Your task to perform on an android device: clear history in the chrome app Image 0: 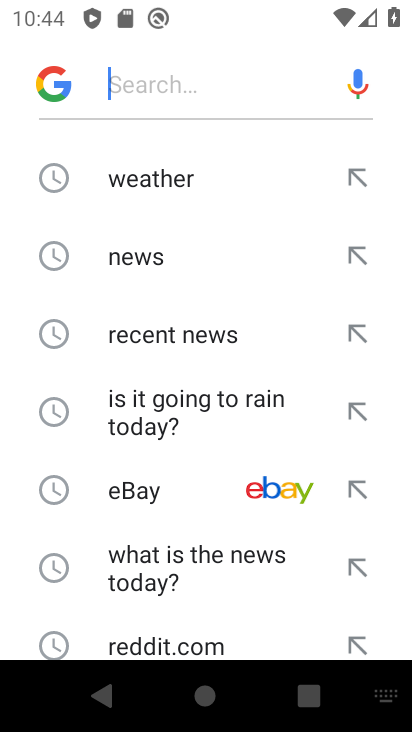
Step 0: press home button
Your task to perform on an android device: clear history in the chrome app Image 1: 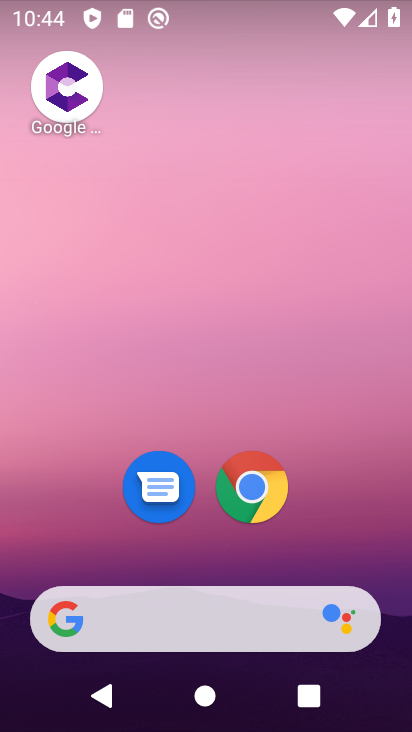
Step 1: drag from (377, 562) to (374, 177)
Your task to perform on an android device: clear history in the chrome app Image 2: 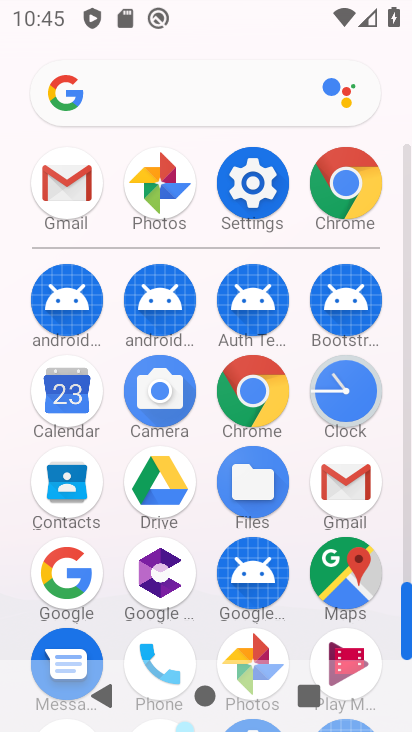
Step 2: click (268, 416)
Your task to perform on an android device: clear history in the chrome app Image 3: 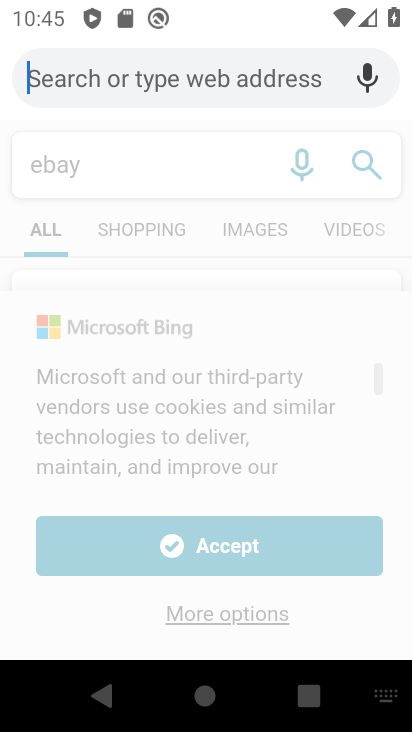
Step 3: press home button
Your task to perform on an android device: clear history in the chrome app Image 4: 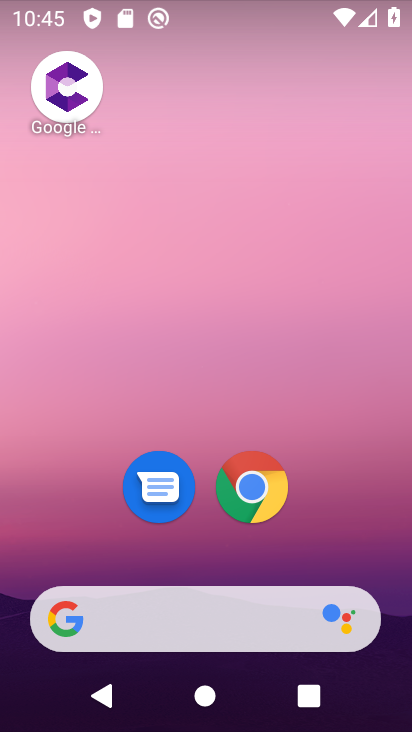
Step 4: drag from (368, 550) to (383, 204)
Your task to perform on an android device: clear history in the chrome app Image 5: 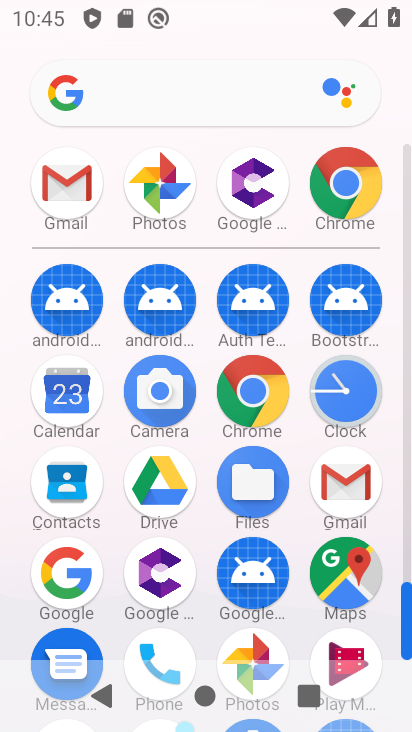
Step 5: click (248, 413)
Your task to perform on an android device: clear history in the chrome app Image 6: 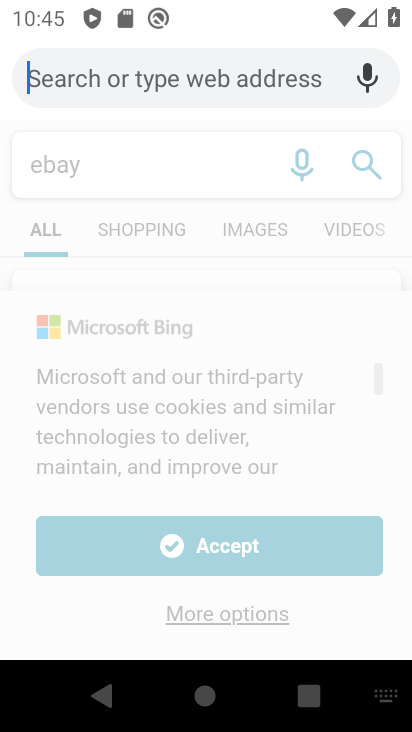
Step 6: press back button
Your task to perform on an android device: clear history in the chrome app Image 7: 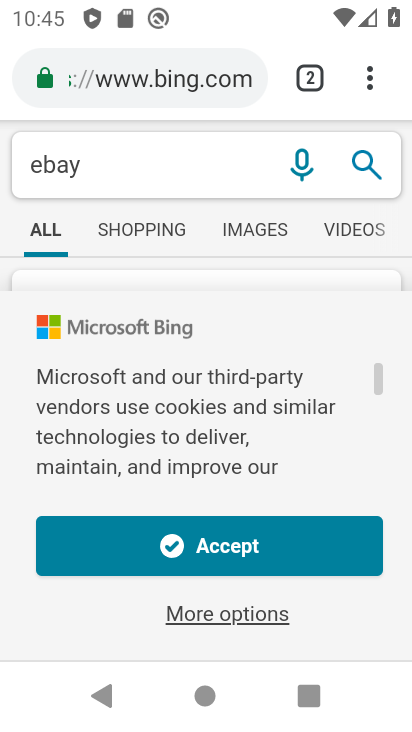
Step 7: click (371, 96)
Your task to perform on an android device: clear history in the chrome app Image 8: 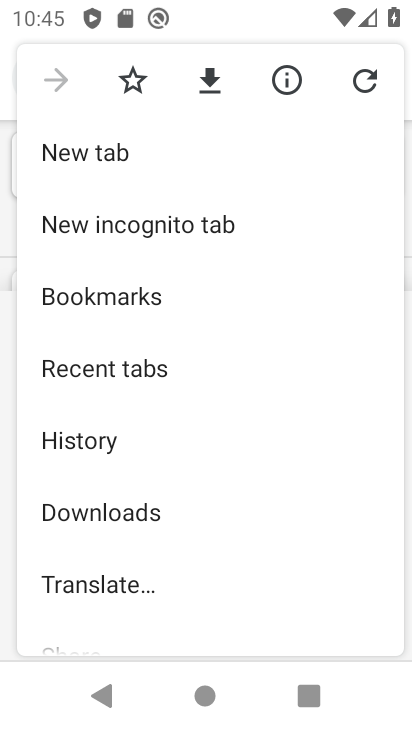
Step 8: drag from (293, 398) to (292, 296)
Your task to perform on an android device: clear history in the chrome app Image 9: 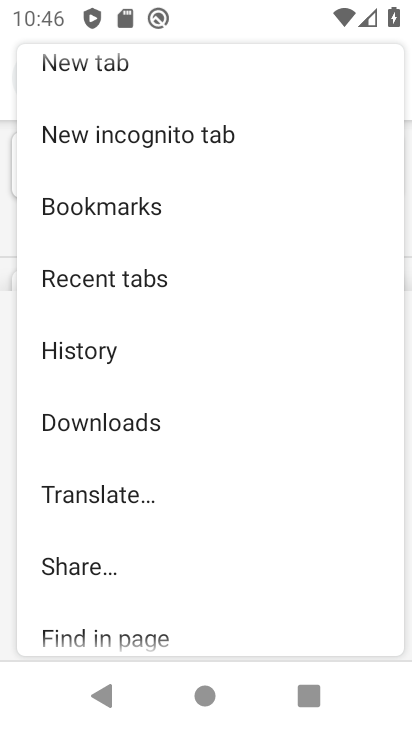
Step 9: drag from (294, 493) to (294, 411)
Your task to perform on an android device: clear history in the chrome app Image 10: 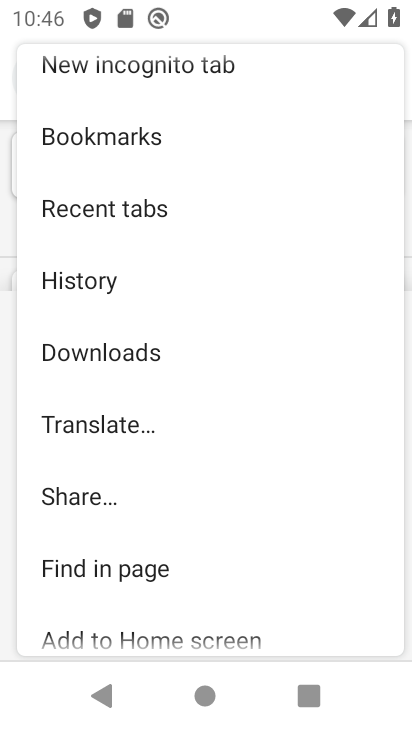
Step 10: click (125, 281)
Your task to perform on an android device: clear history in the chrome app Image 11: 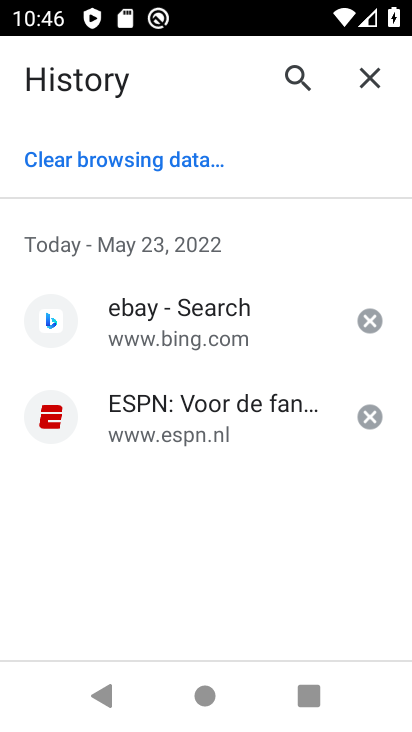
Step 11: click (157, 144)
Your task to perform on an android device: clear history in the chrome app Image 12: 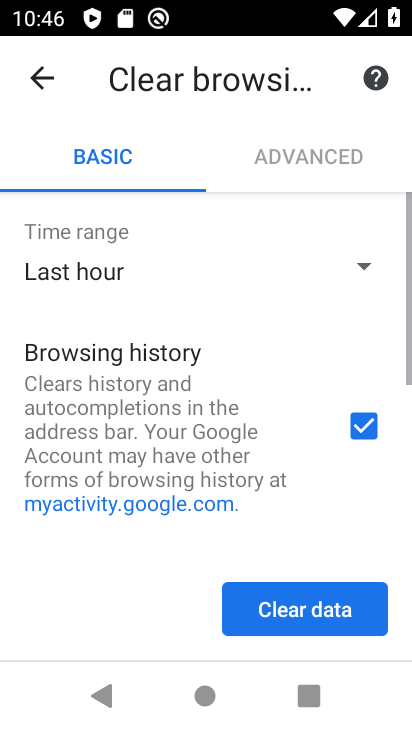
Step 12: click (353, 624)
Your task to perform on an android device: clear history in the chrome app Image 13: 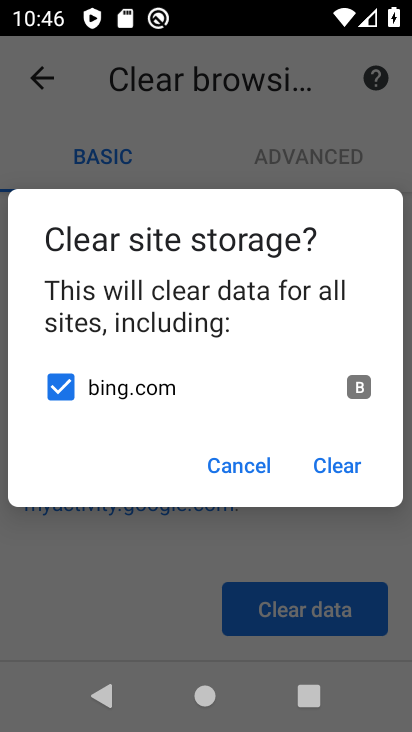
Step 13: click (315, 468)
Your task to perform on an android device: clear history in the chrome app Image 14: 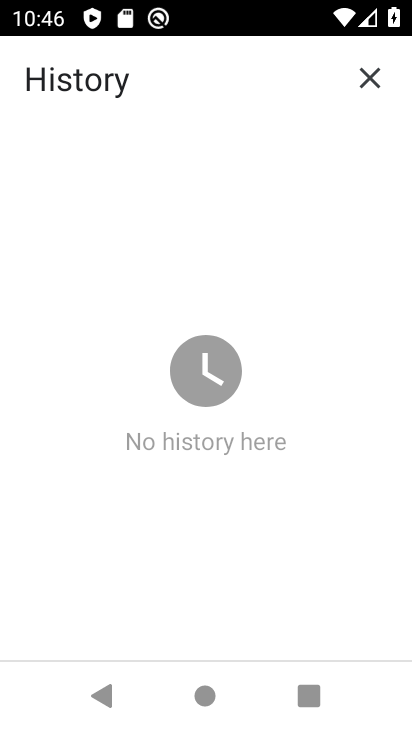
Step 14: task complete